Your task to perform on an android device: uninstall "Google News" Image 0: 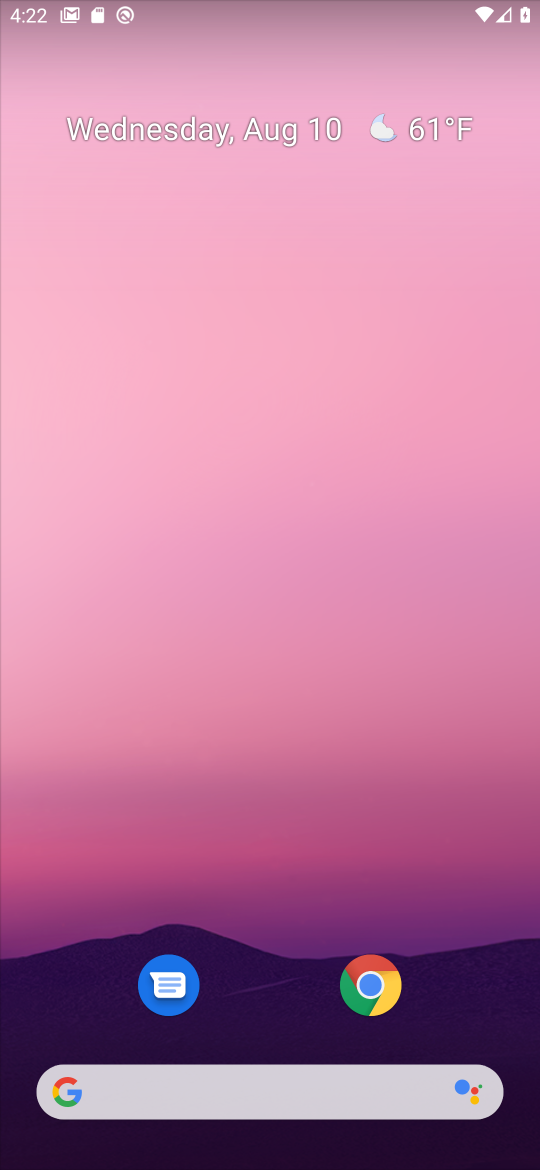
Step 0: drag from (273, 967) to (359, 318)
Your task to perform on an android device: uninstall "Google News" Image 1: 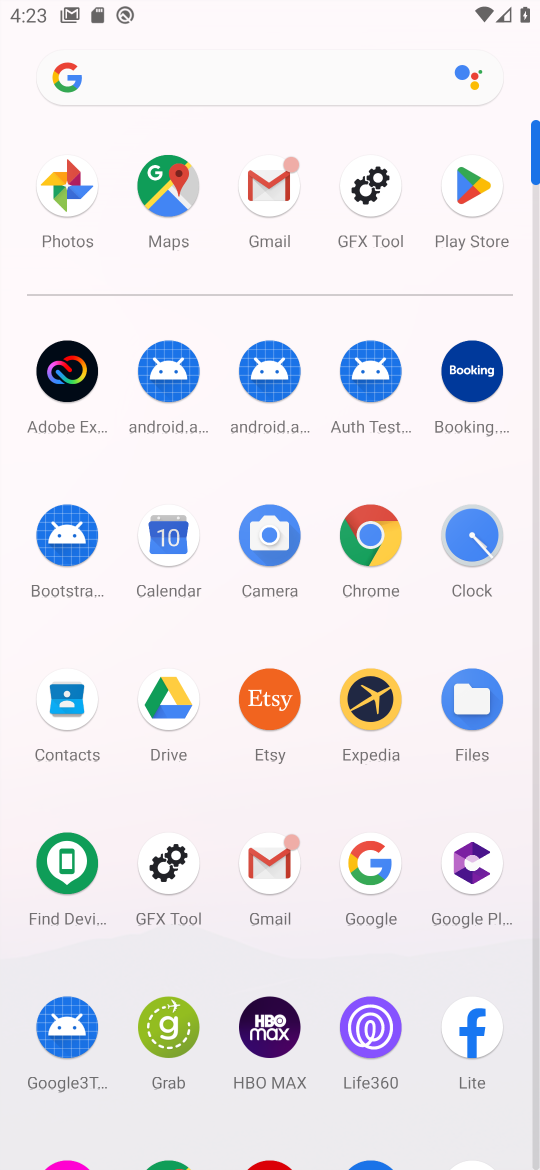
Step 1: click (453, 212)
Your task to perform on an android device: uninstall "Google News" Image 2: 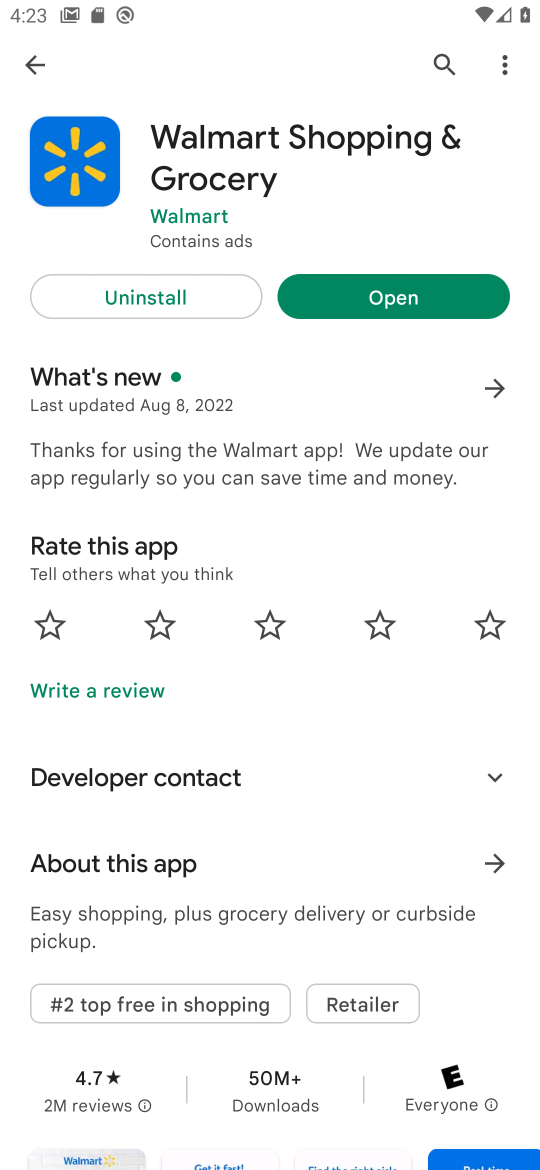
Step 2: click (28, 64)
Your task to perform on an android device: uninstall "Google News" Image 3: 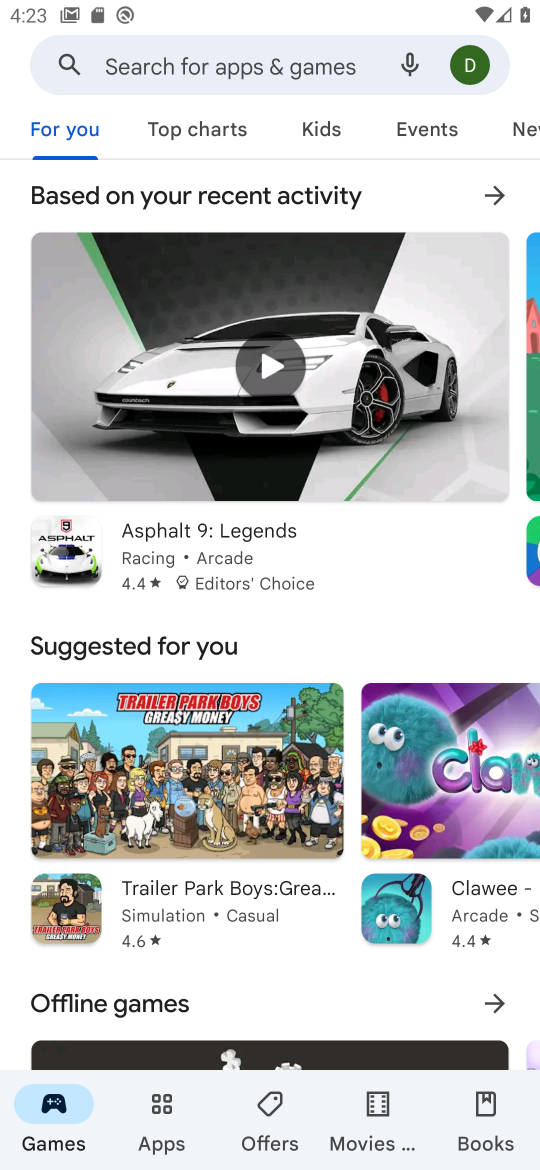
Step 3: click (227, 64)
Your task to perform on an android device: uninstall "Google News" Image 4: 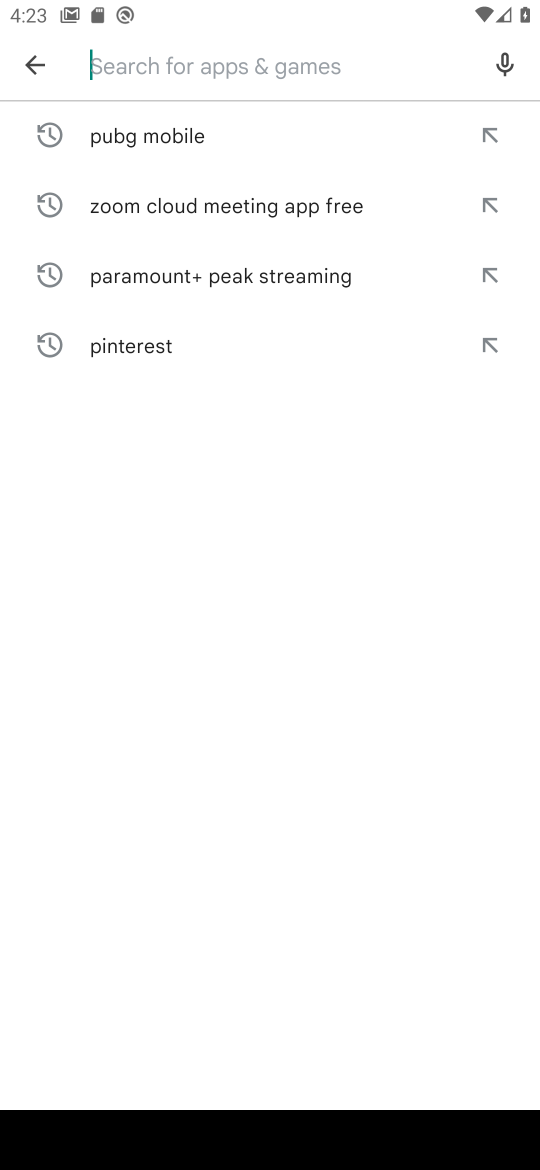
Step 4: type "Google News"
Your task to perform on an android device: uninstall "Google News" Image 5: 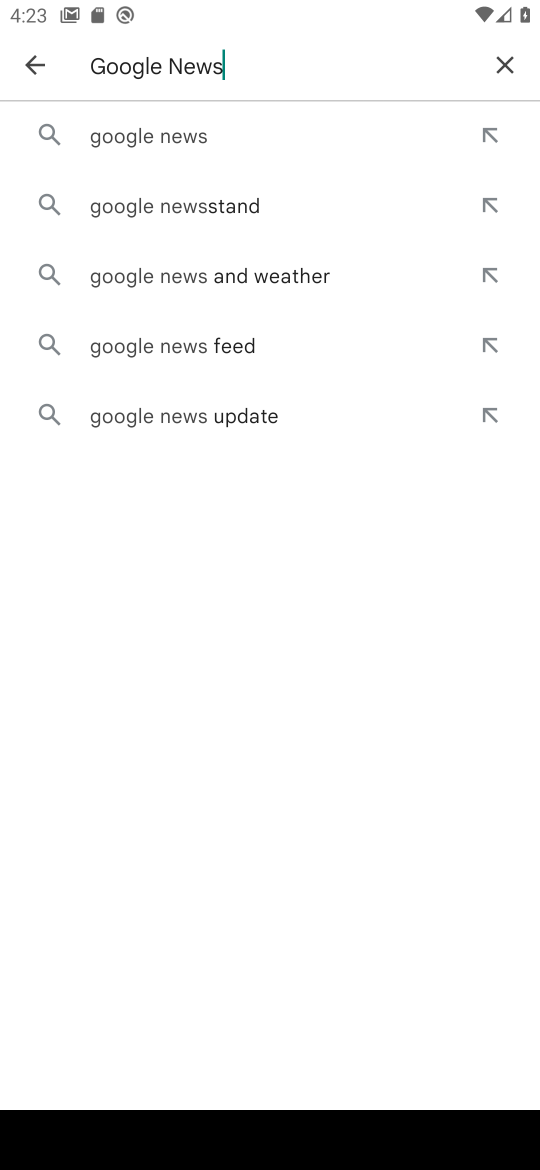
Step 5: click (195, 131)
Your task to perform on an android device: uninstall "Google News" Image 6: 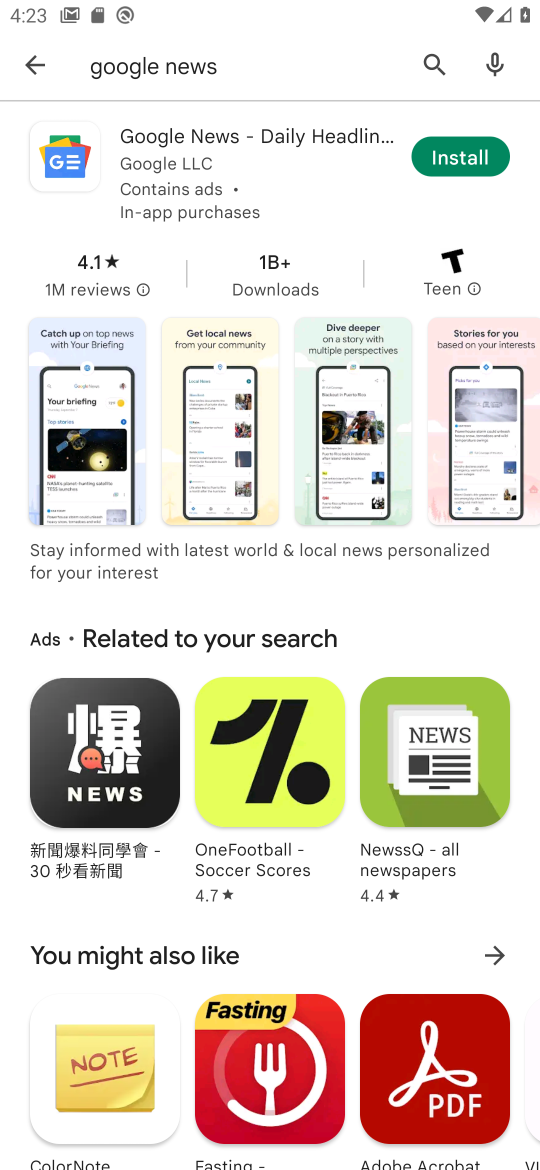
Step 6: task complete